Your task to perform on an android device: Show me popular videos on Youtube Image 0: 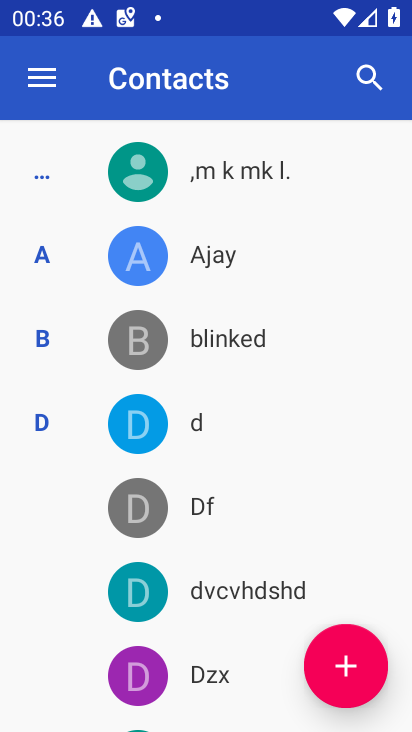
Step 0: press home button
Your task to perform on an android device: Show me popular videos on Youtube Image 1: 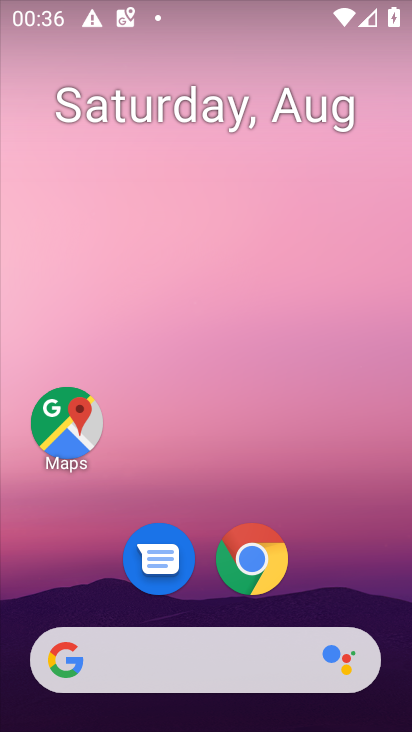
Step 1: drag from (399, 626) to (253, 63)
Your task to perform on an android device: Show me popular videos on Youtube Image 2: 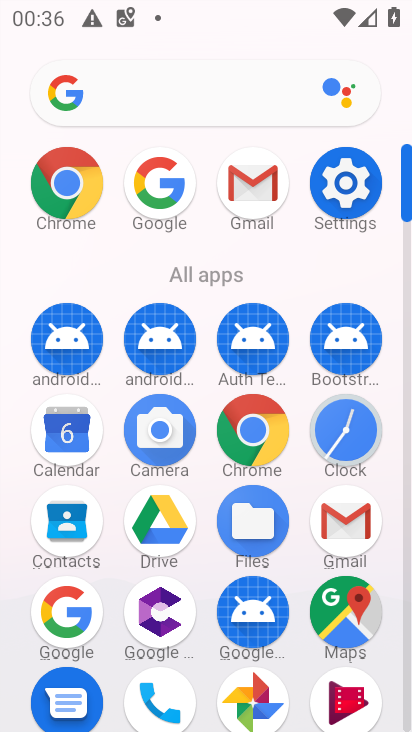
Step 2: click (409, 704)
Your task to perform on an android device: Show me popular videos on Youtube Image 3: 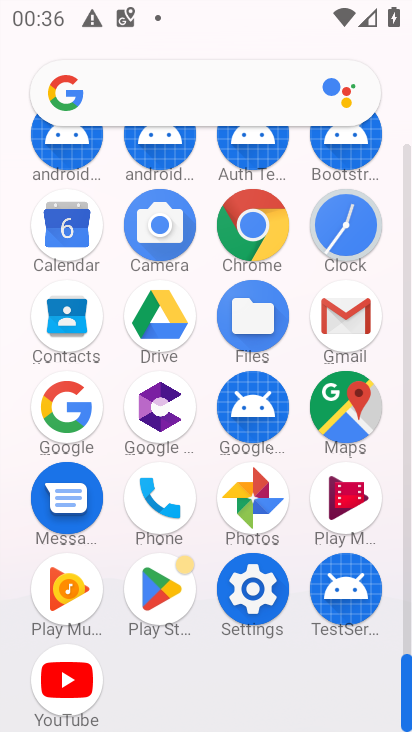
Step 3: click (76, 699)
Your task to perform on an android device: Show me popular videos on Youtube Image 4: 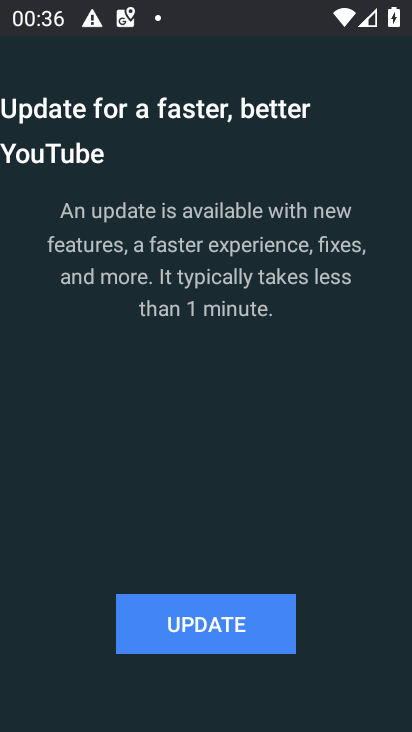
Step 4: click (238, 641)
Your task to perform on an android device: Show me popular videos on Youtube Image 5: 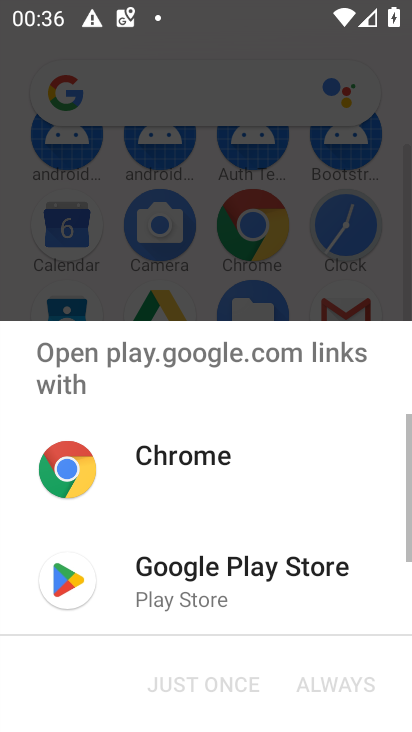
Step 5: click (277, 610)
Your task to perform on an android device: Show me popular videos on Youtube Image 6: 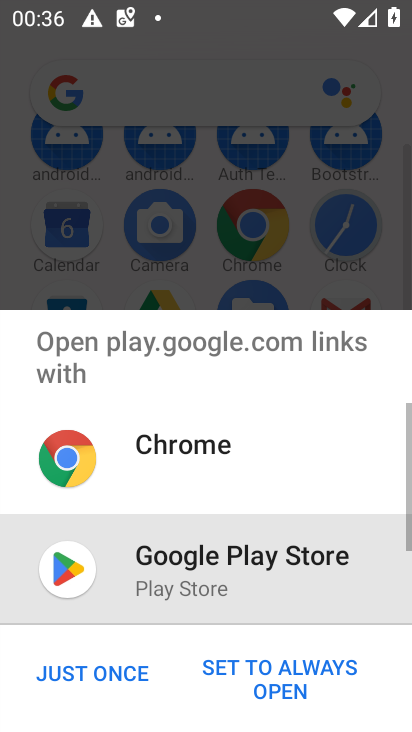
Step 6: click (104, 693)
Your task to perform on an android device: Show me popular videos on Youtube Image 7: 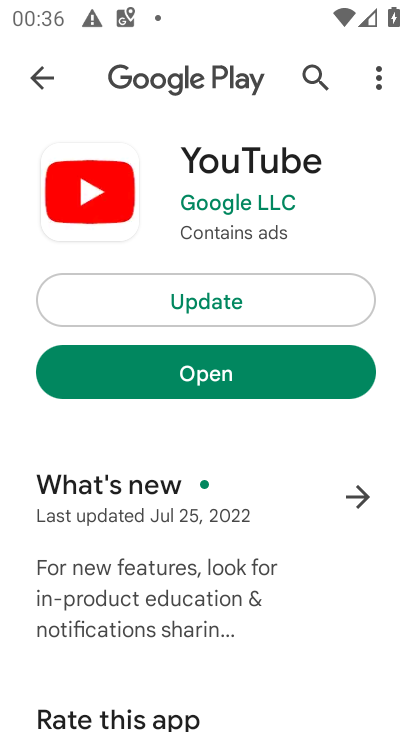
Step 7: click (240, 289)
Your task to perform on an android device: Show me popular videos on Youtube Image 8: 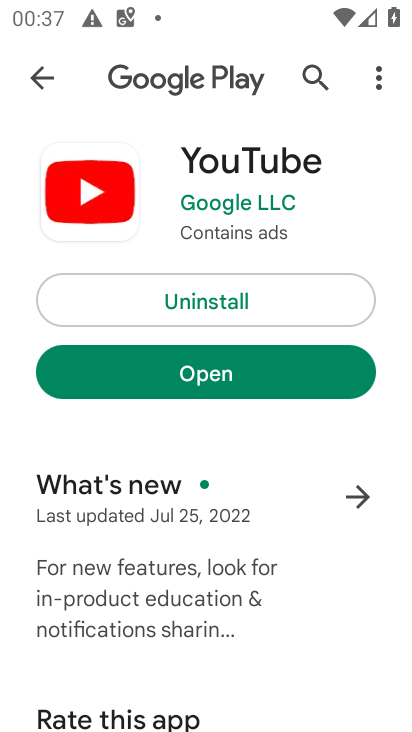
Step 8: click (246, 370)
Your task to perform on an android device: Show me popular videos on Youtube Image 9: 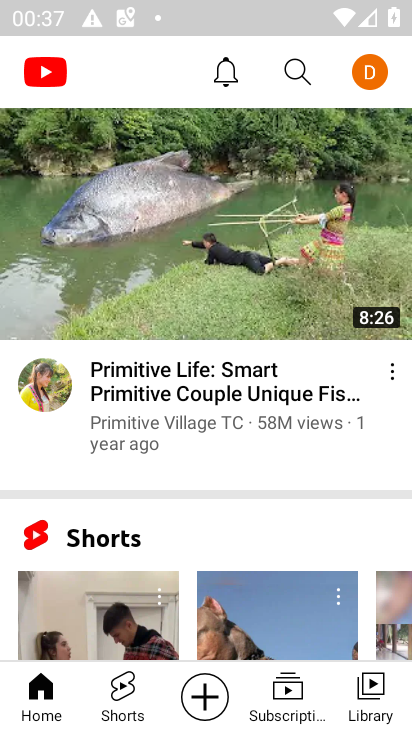
Step 9: task complete